Your task to perform on an android device: Is it going to rain tomorrow? Image 0: 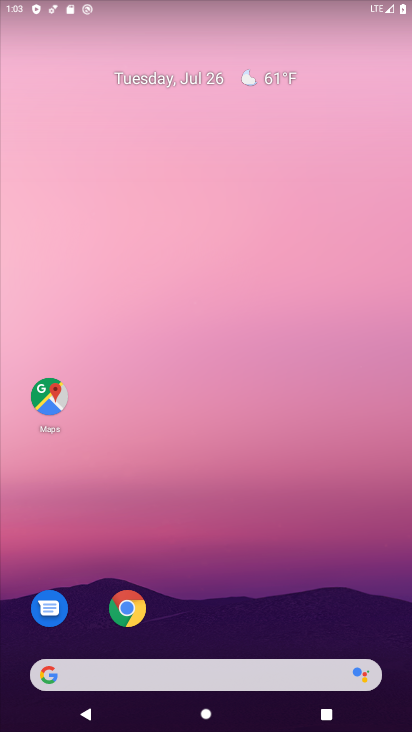
Step 0: drag from (280, 627) to (197, 170)
Your task to perform on an android device: Is it going to rain tomorrow? Image 1: 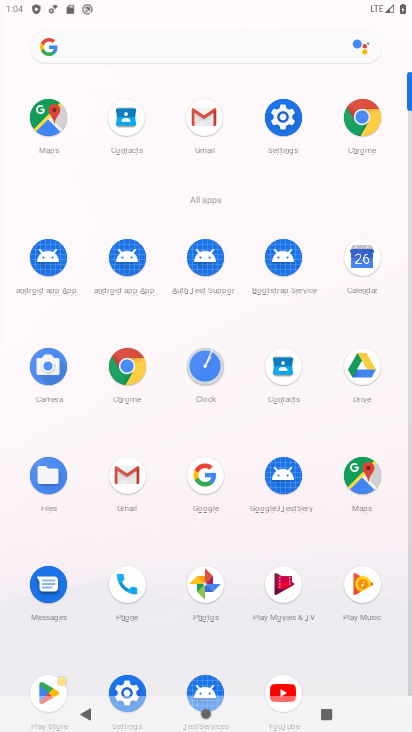
Step 1: click (357, 133)
Your task to perform on an android device: Is it going to rain tomorrow? Image 2: 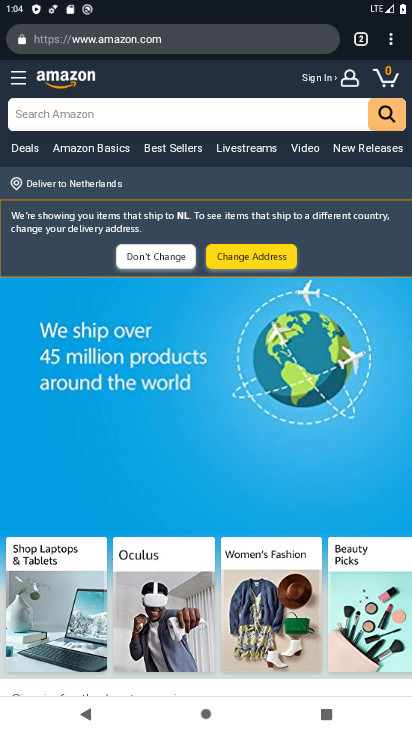
Step 2: click (200, 32)
Your task to perform on an android device: Is it going to rain tomorrow? Image 3: 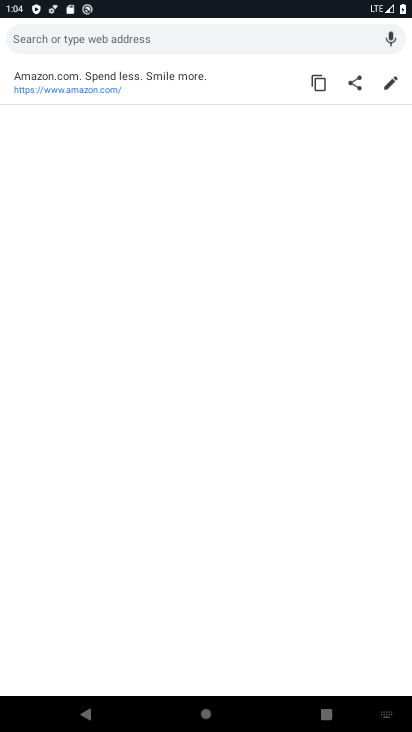
Step 3: type "Is it going to rain tomorrow?"
Your task to perform on an android device: Is it going to rain tomorrow? Image 4: 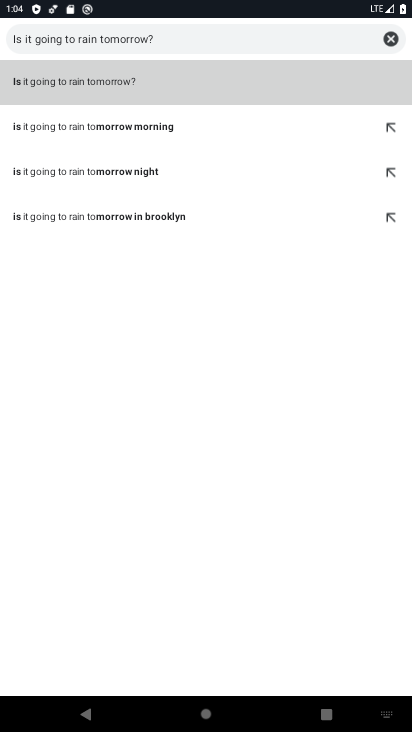
Step 4: click (264, 77)
Your task to perform on an android device: Is it going to rain tomorrow? Image 5: 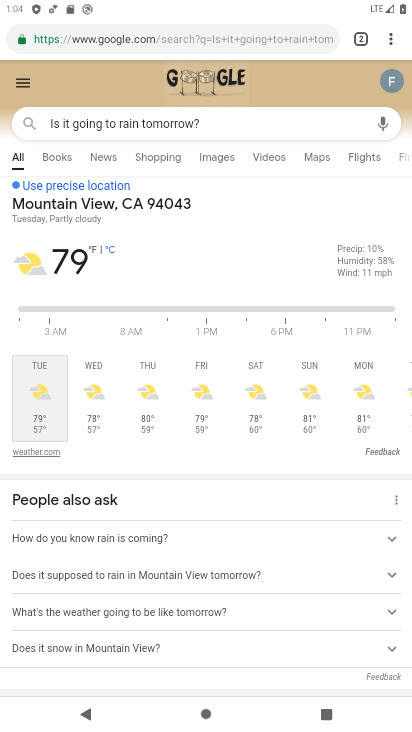
Step 5: task complete